Your task to perform on an android device: turn off wifi Image 0: 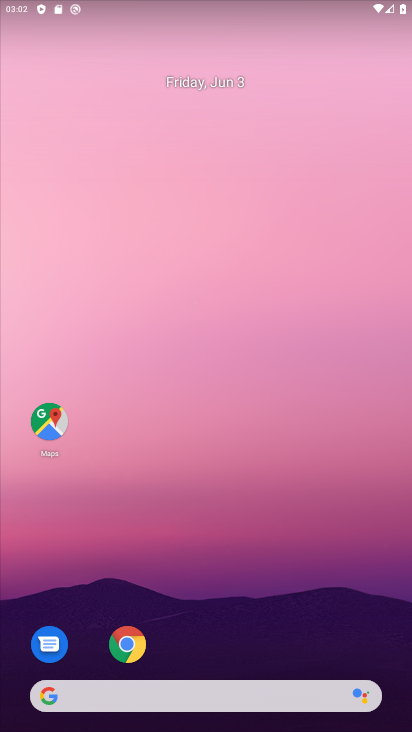
Step 0: press home button
Your task to perform on an android device: turn off wifi Image 1: 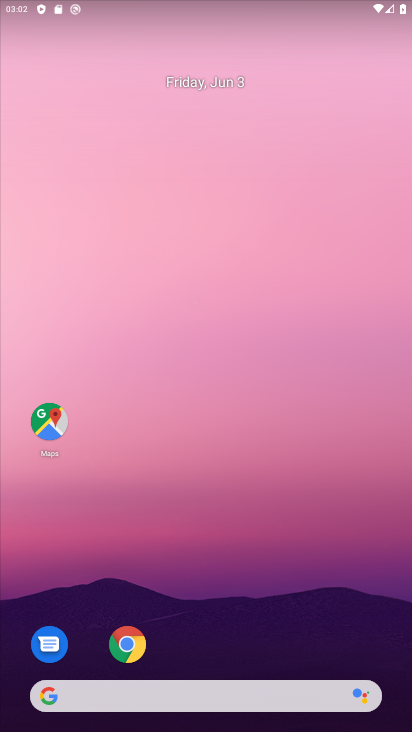
Step 1: click (238, 479)
Your task to perform on an android device: turn off wifi Image 2: 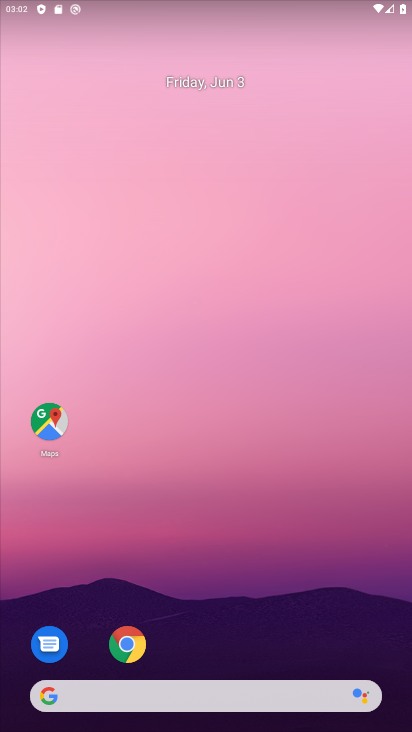
Step 2: drag from (391, 2) to (378, 271)
Your task to perform on an android device: turn off wifi Image 3: 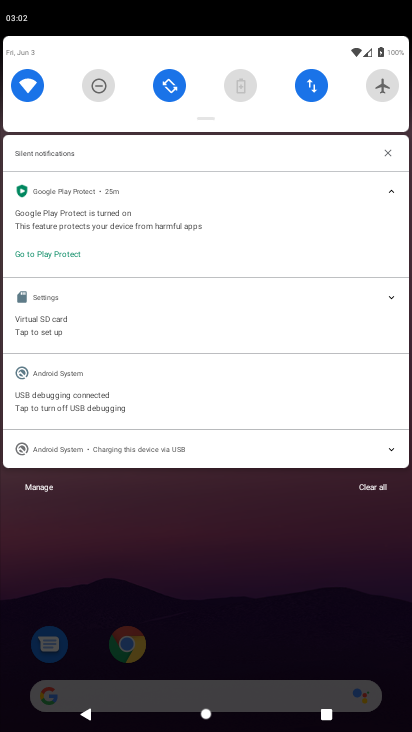
Step 3: click (27, 68)
Your task to perform on an android device: turn off wifi Image 4: 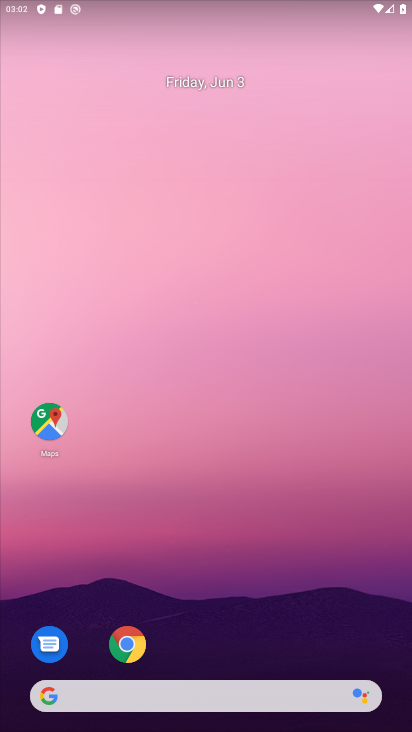
Step 4: task complete